Your task to perform on an android device: turn on showing notifications on the lock screen Image 0: 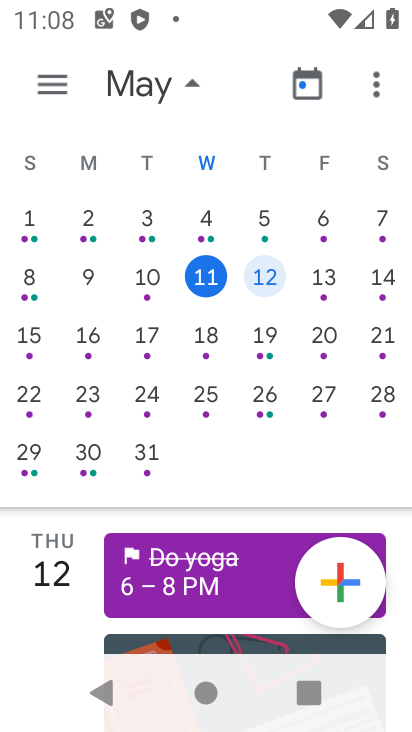
Step 0: press home button
Your task to perform on an android device: turn on showing notifications on the lock screen Image 1: 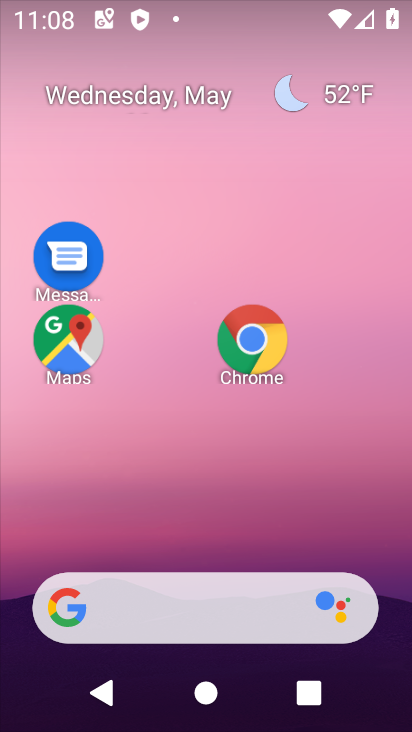
Step 1: drag from (197, 510) to (229, 57)
Your task to perform on an android device: turn on showing notifications on the lock screen Image 2: 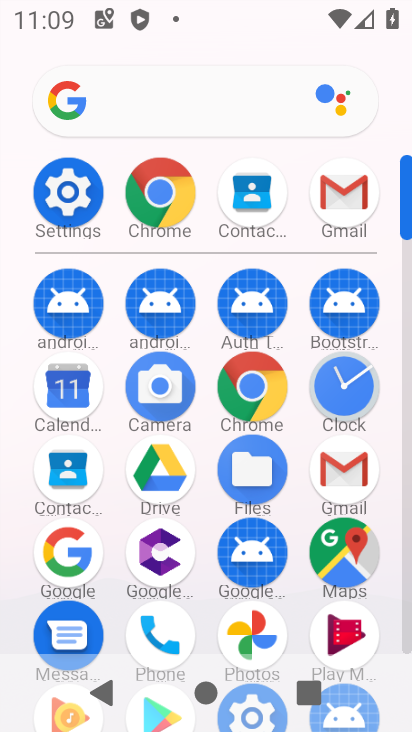
Step 2: click (68, 190)
Your task to perform on an android device: turn on showing notifications on the lock screen Image 3: 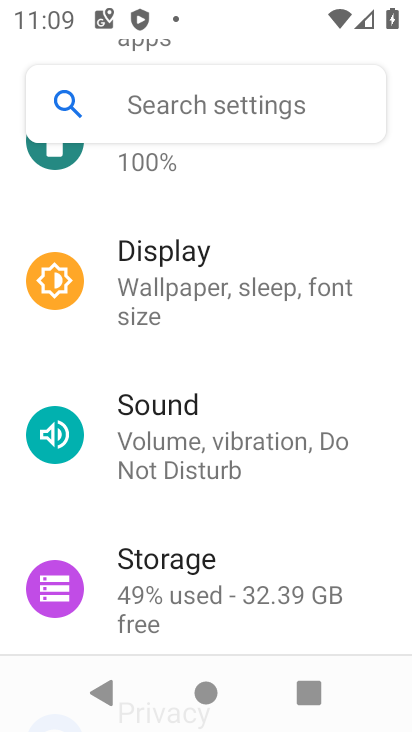
Step 3: drag from (216, 250) to (344, 639)
Your task to perform on an android device: turn on showing notifications on the lock screen Image 4: 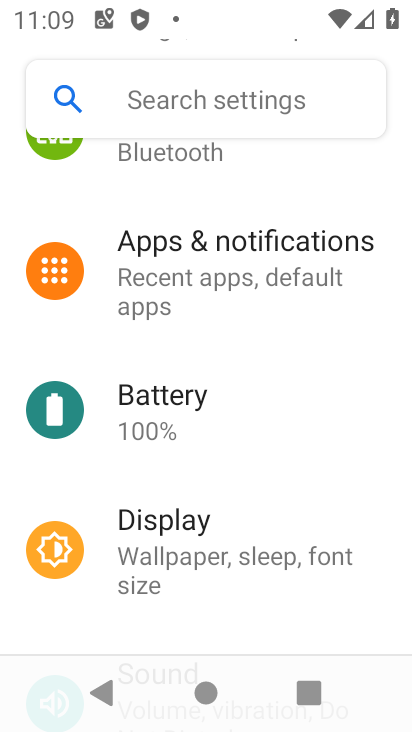
Step 4: click (184, 268)
Your task to perform on an android device: turn on showing notifications on the lock screen Image 5: 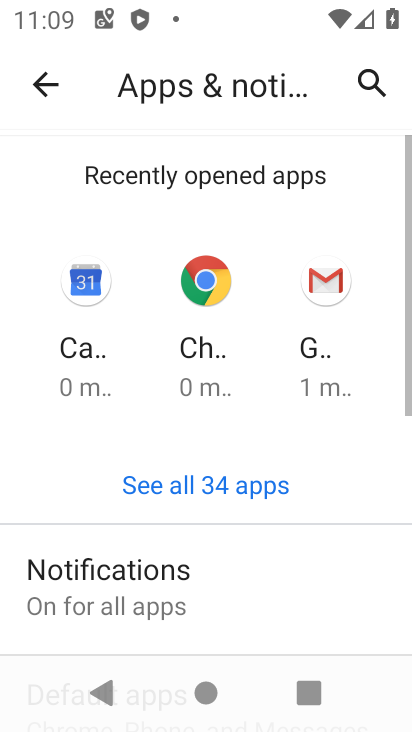
Step 5: drag from (275, 601) to (264, 192)
Your task to perform on an android device: turn on showing notifications on the lock screen Image 6: 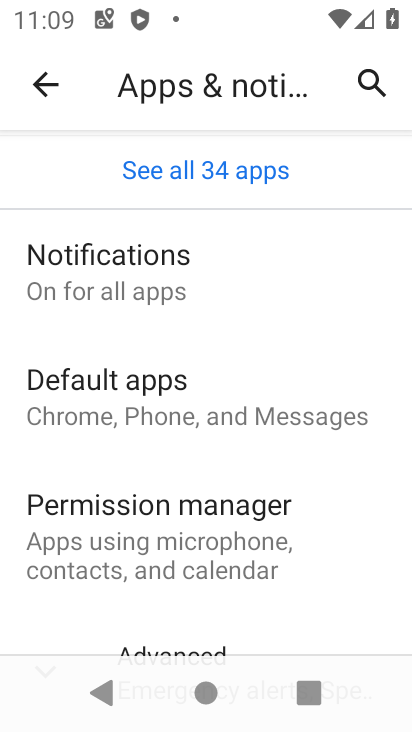
Step 6: click (129, 272)
Your task to perform on an android device: turn on showing notifications on the lock screen Image 7: 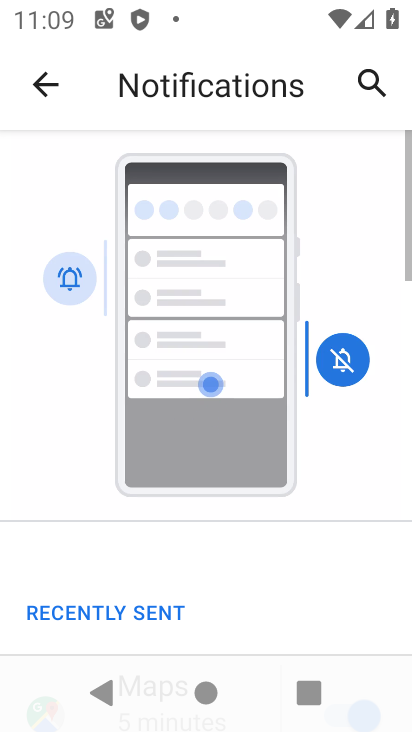
Step 7: drag from (223, 562) to (206, 33)
Your task to perform on an android device: turn on showing notifications on the lock screen Image 8: 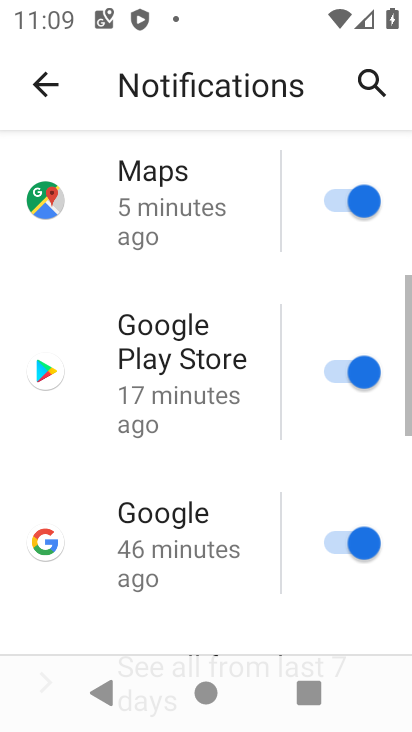
Step 8: drag from (232, 578) to (199, 40)
Your task to perform on an android device: turn on showing notifications on the lock screen Image 9: 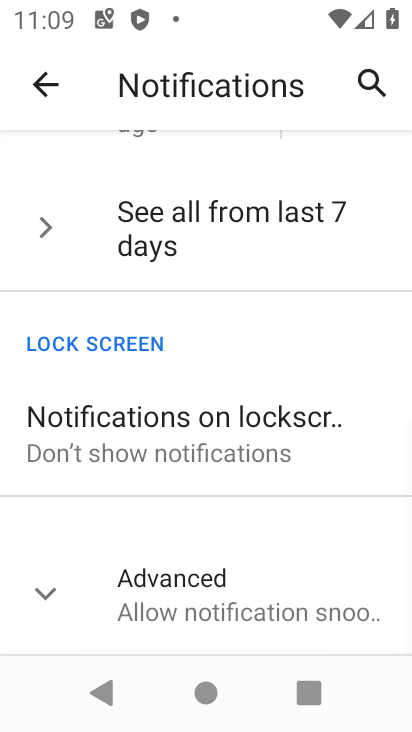
Step 9: drag from (219, 593) to (208, 314)
Your task to perform on an android device: turn on showing notifications on the lock screen Image 10: 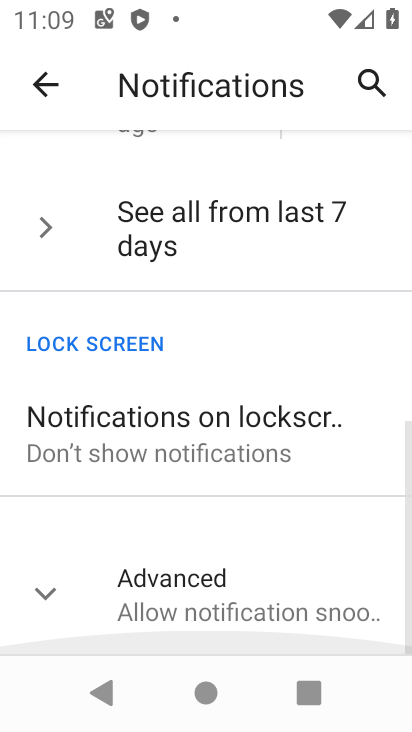
Step 10: click (233, 439)
Your task to perform on an android device: turn on showing notifications on the lock screen Image 11: 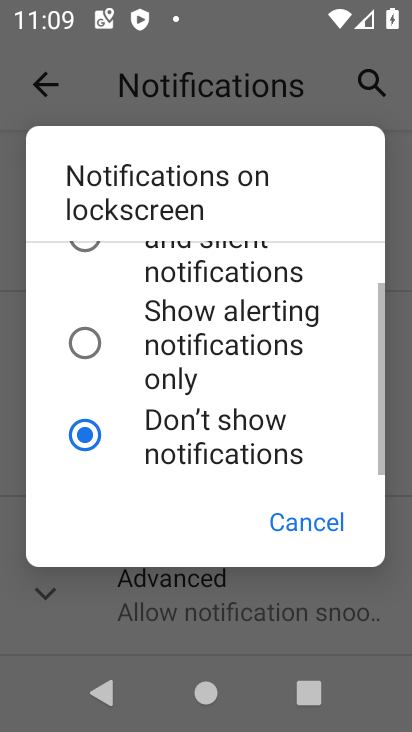
Step 11: click (94, 251)
Your task to perform on an android device: turn on showing notifications on the lock screen Image 12: 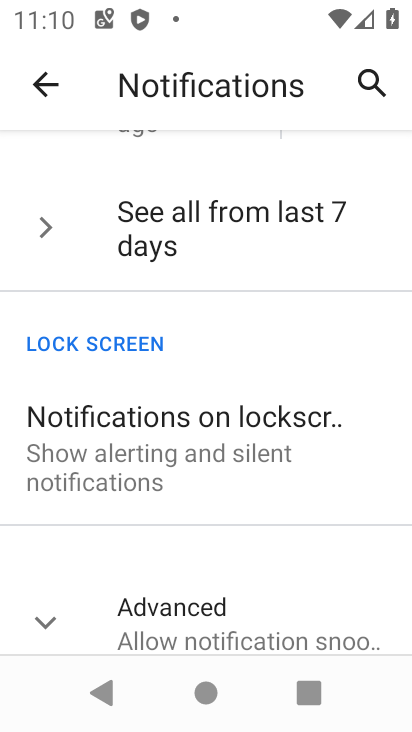
Step 12: task complete